Your task to perform on an android device: check google app version Image 0: 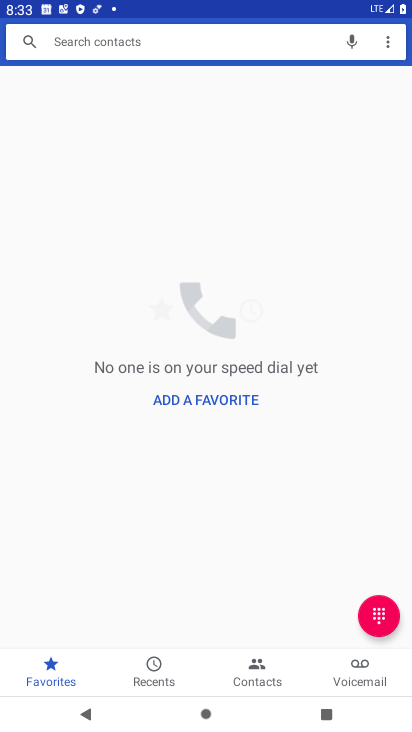
Step 0: press home button
Your task to perform on an android device: check google app version Image 1: 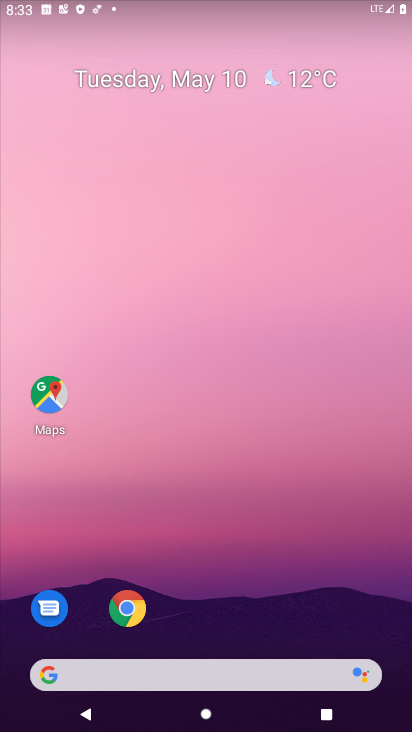
Step 1: drag from (187, 681) to (327, 283)
Your task to perform on an android device: check google app version Image 2: 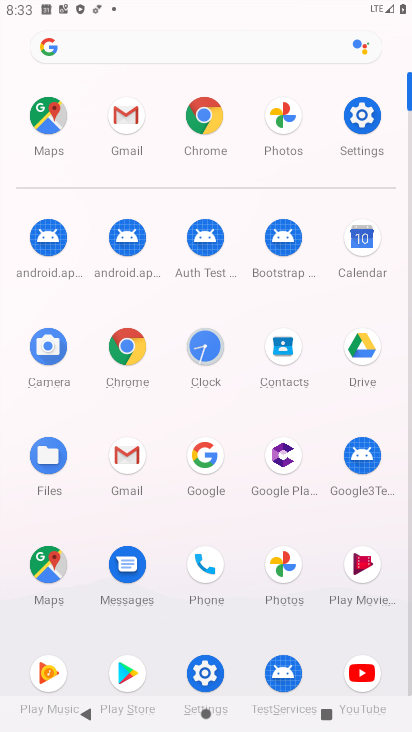
Step 2: click (209, 453)
Your task to perform on an android device: check google app version Image 3: 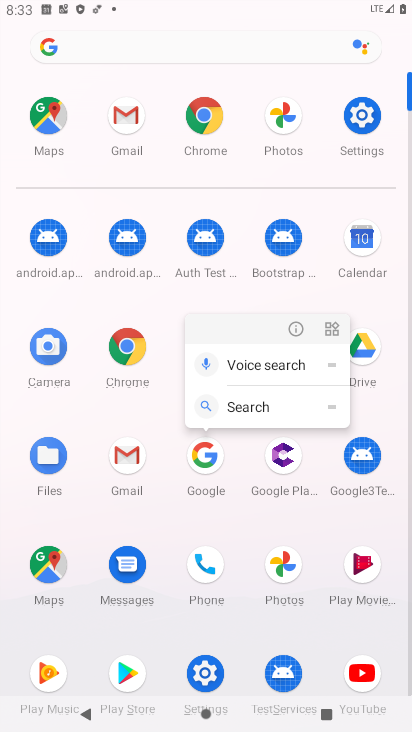
Step 3: click (303, 329)
Your task to perform on an android device: check google app version Image 4: 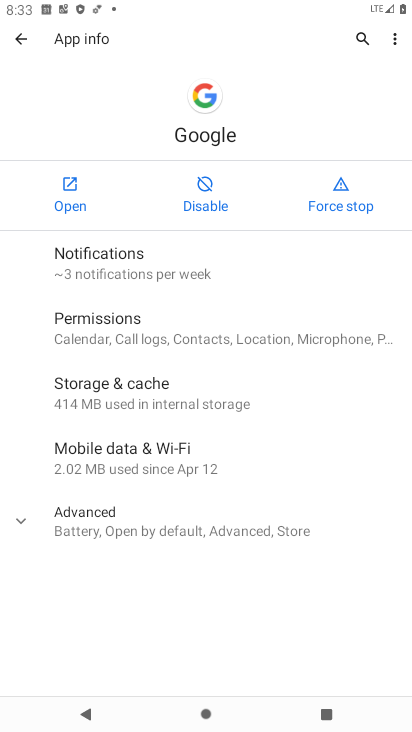
Step 4: click (83, 516)
Your task to perform on an android device: check google app version Image 5: 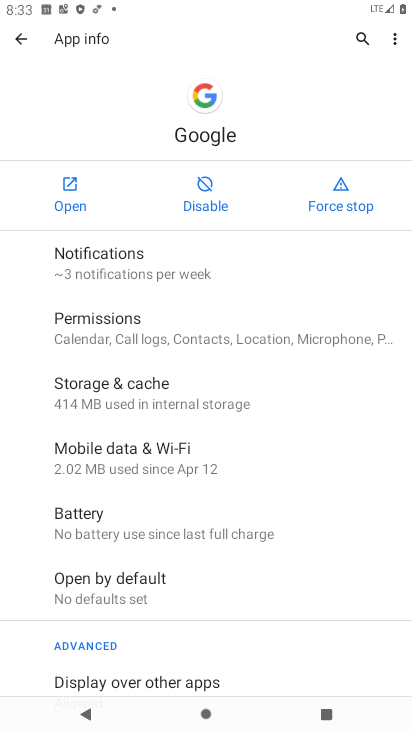
Step 5: task complete